Your task to perform on an android device: toggle javascript in the chrome app Image 0: 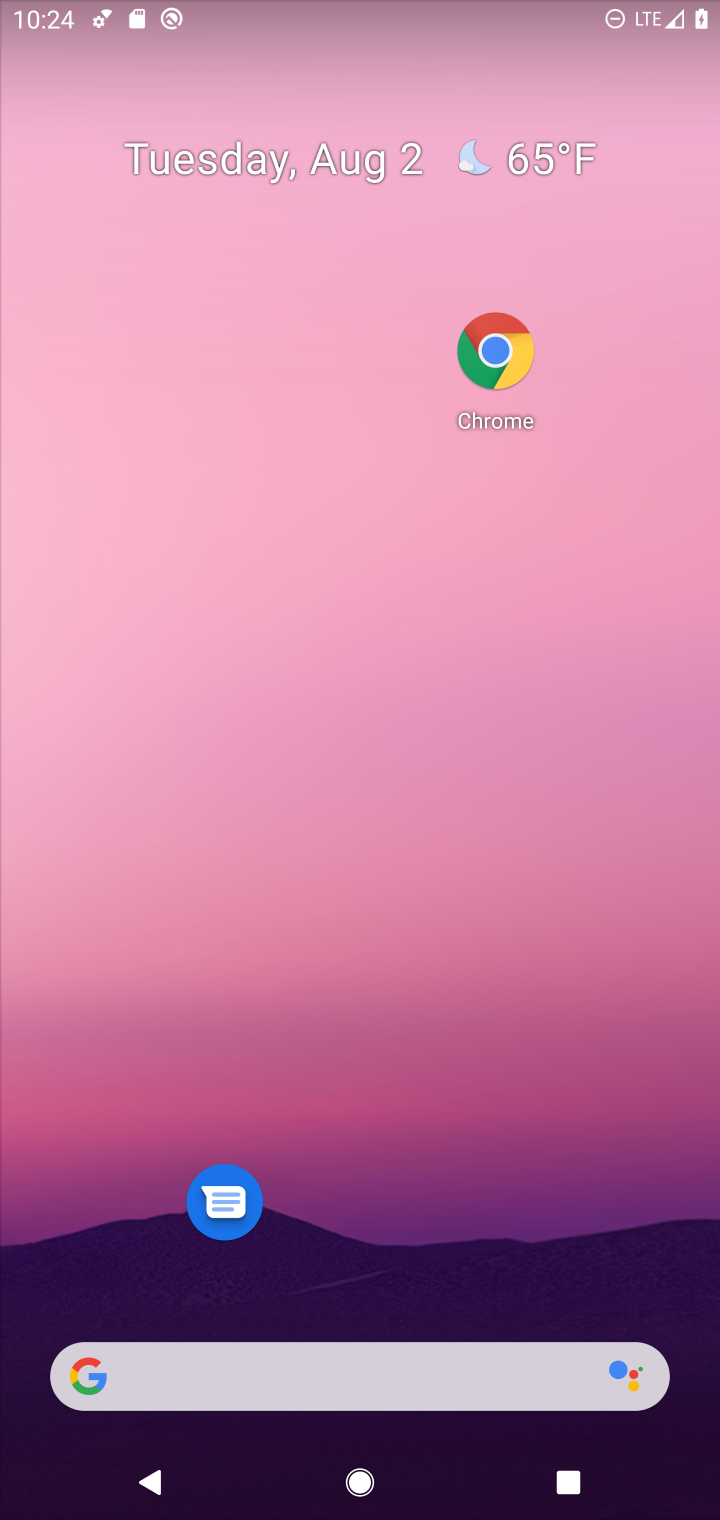
Step 0: click (512, 360)
Your task to perform on an android device: toggle javascript in the chrome app Image 1: 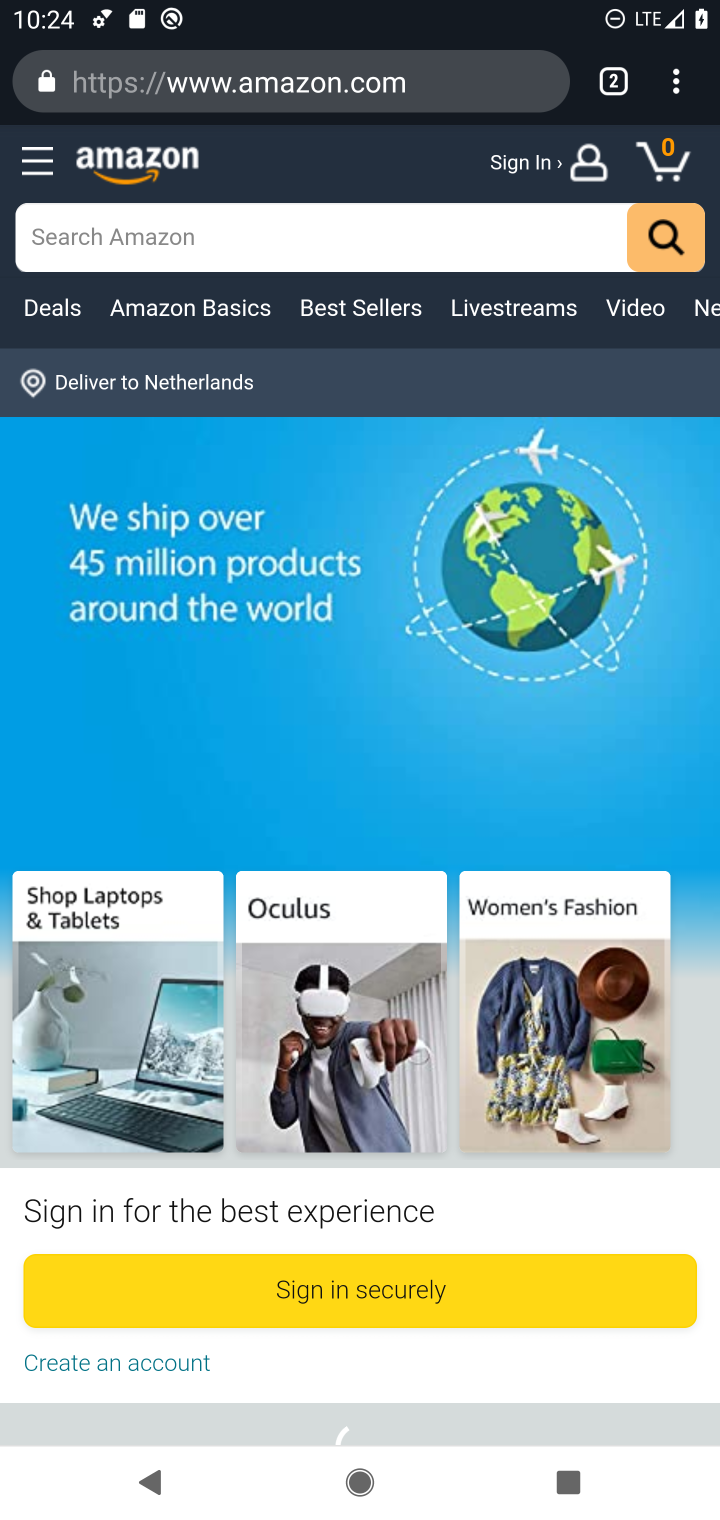
Step 1: drag from (677, 90) to (362, 997)
Your task to perform on an android device: toggle javascript in the chrome app Image 2: 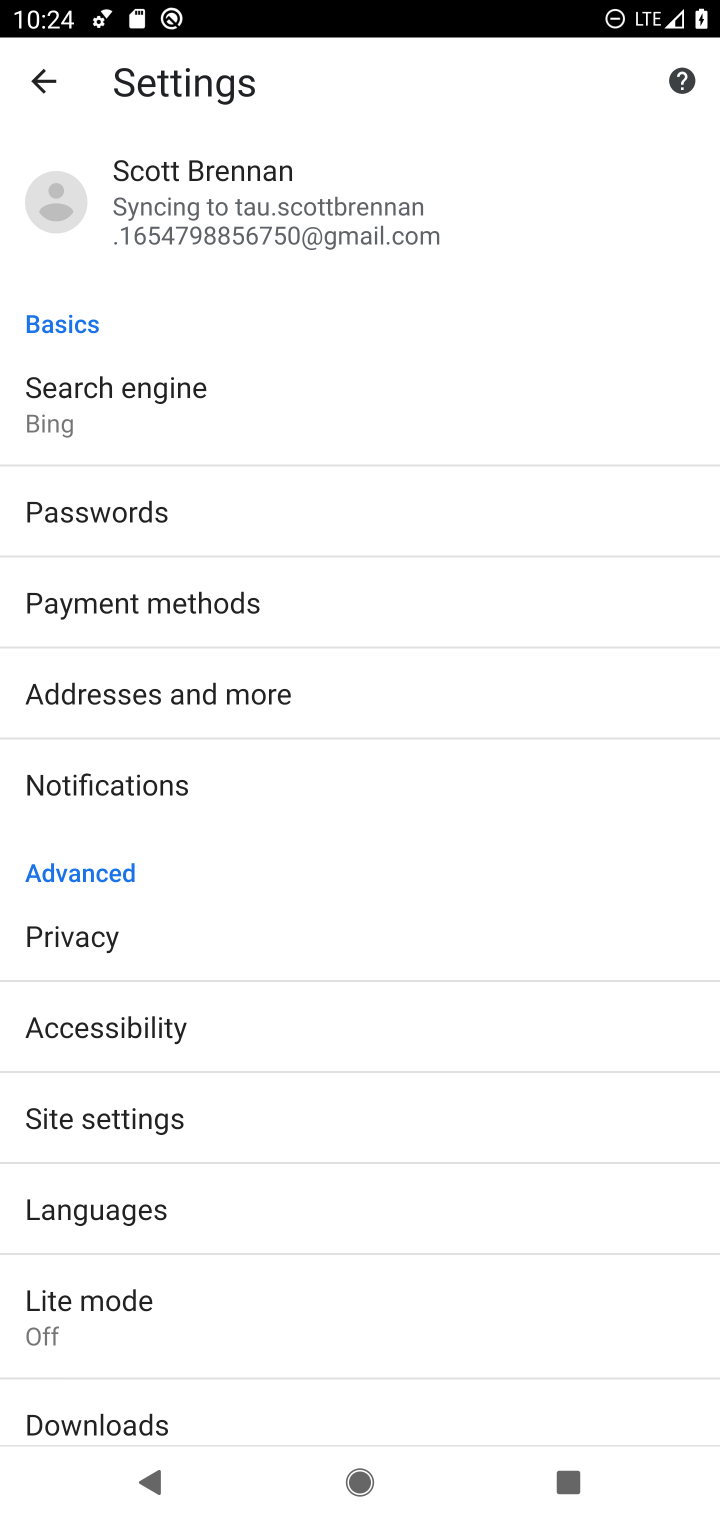
Step 2: click (133, 1117)
Your task to perform on an android device: toggle javascript in the chrome app Image 3: 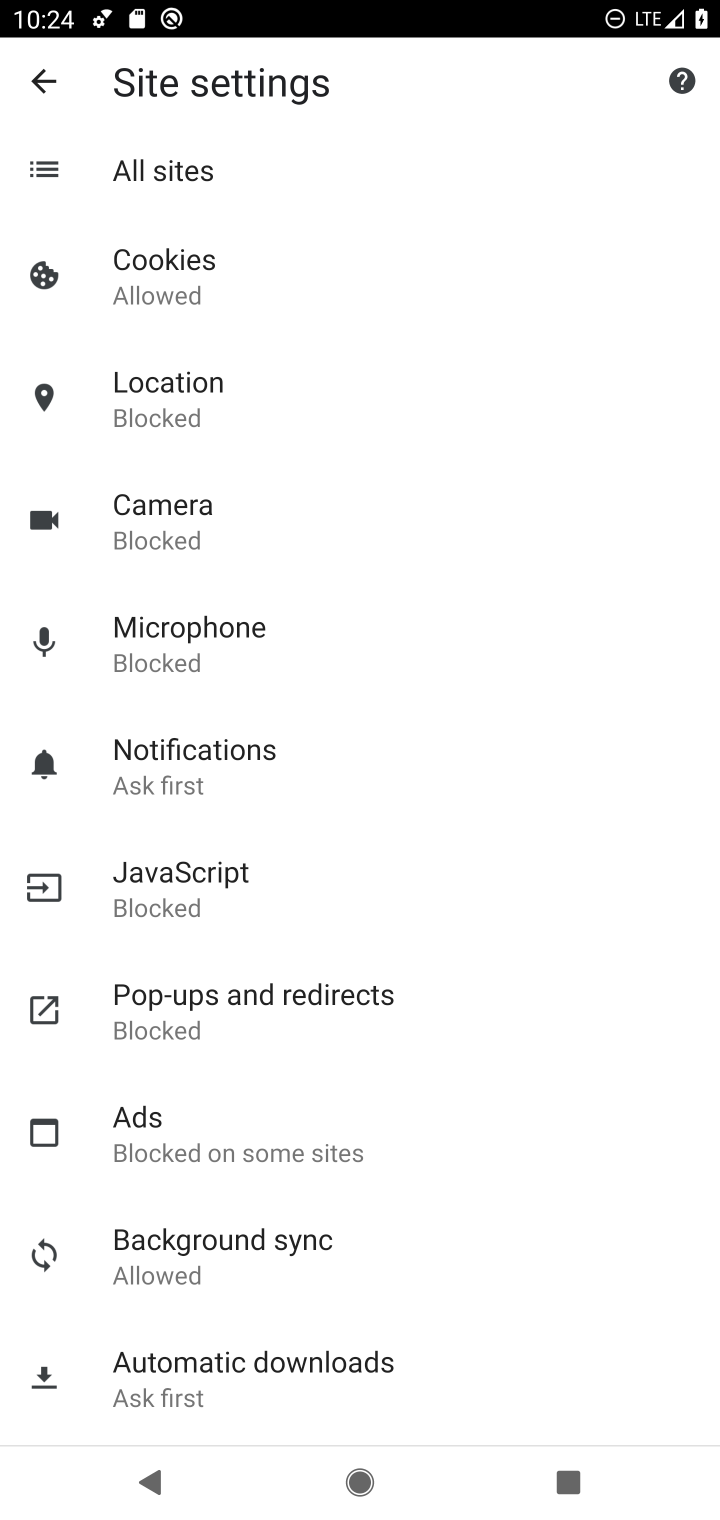
Step 3: click (119, 888)
Your task to perform on an android device: toggle javascript in the chrome app Image 4: 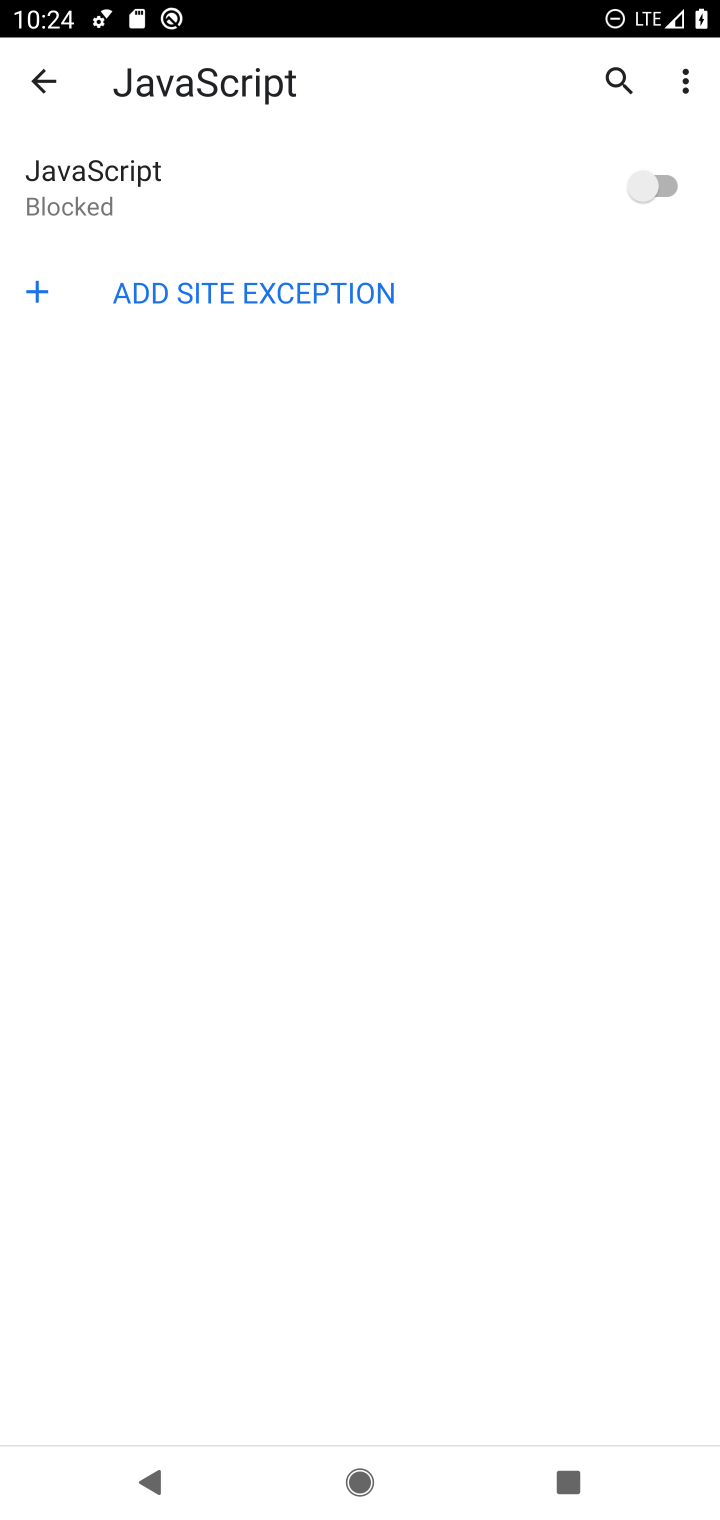
Step 4: click (645, 186)
Your task to perform on an android device: toggle javascript in the chrome app Image 5: 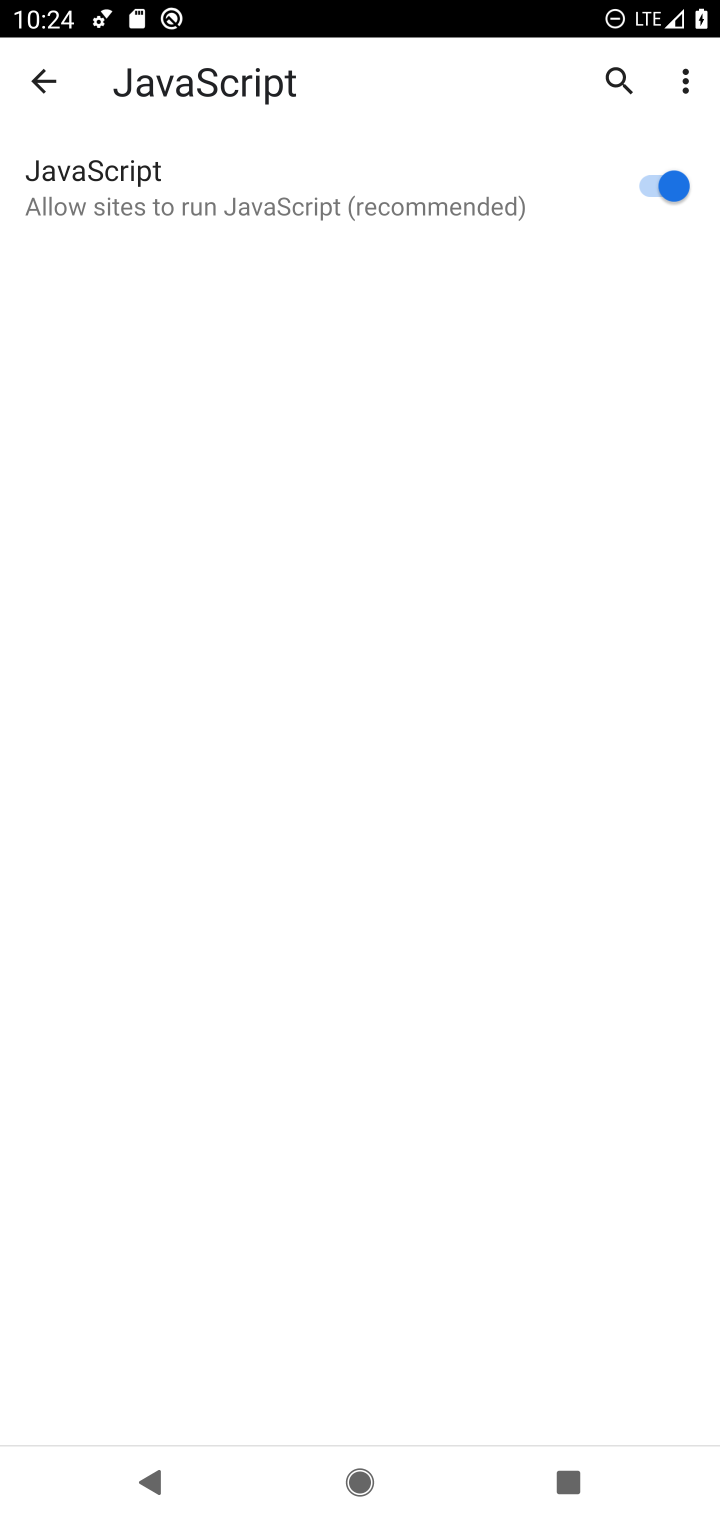
Step 5: task complete